Your task to perform on an android device: toggle sleep mode Image 0: 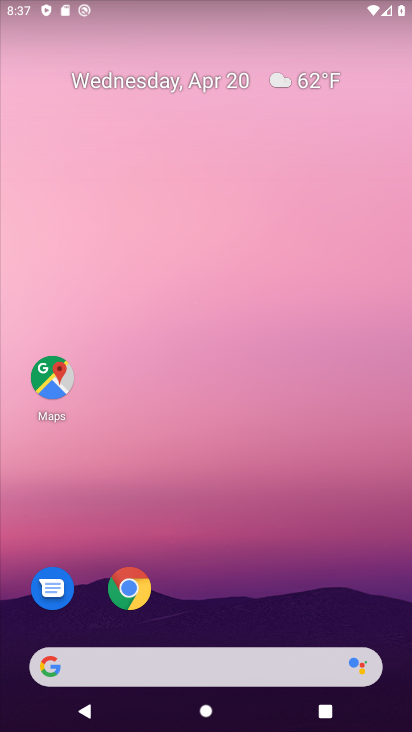
Step 0: drag from (243, 280) to (278, 14)
Your task to perform on an android device: toggle sleep mode Image 1: 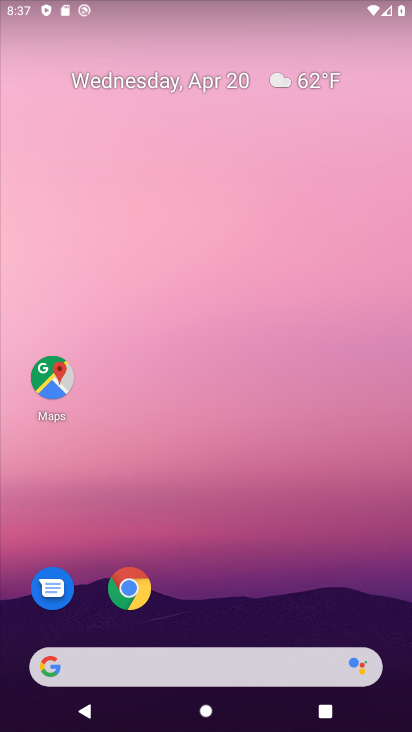
Step 1: drag from (215, 614) to (307, 75)
Your task to perform on an android device: toggle sleep mode Image 2: 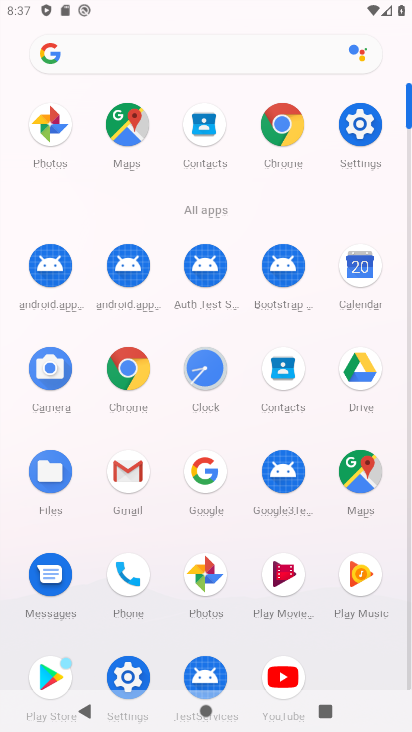
Step 2: click (361, 115)
Your task to perform on an android device: toggle sleep mode Image 3: 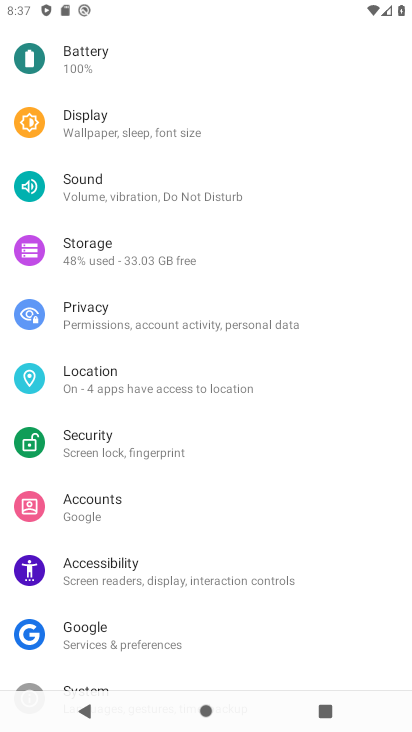
Step 3: click (107, 109)
Your task to perform on an android device: toggle sleep mode Image 4: 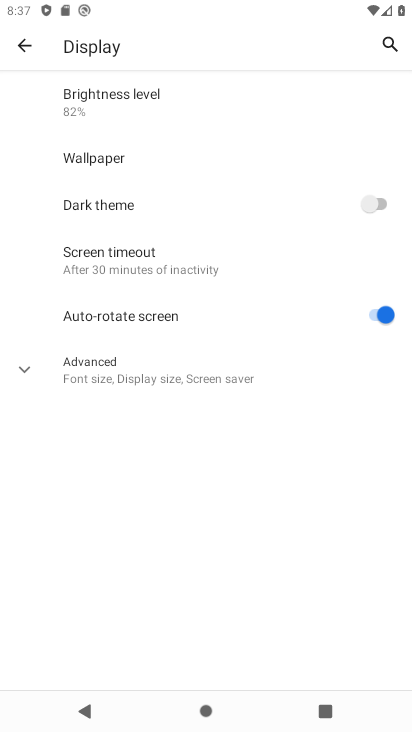
Step 4: click (38, 369)
Your task to perform on an android device: toggle sleep mode Image 5: 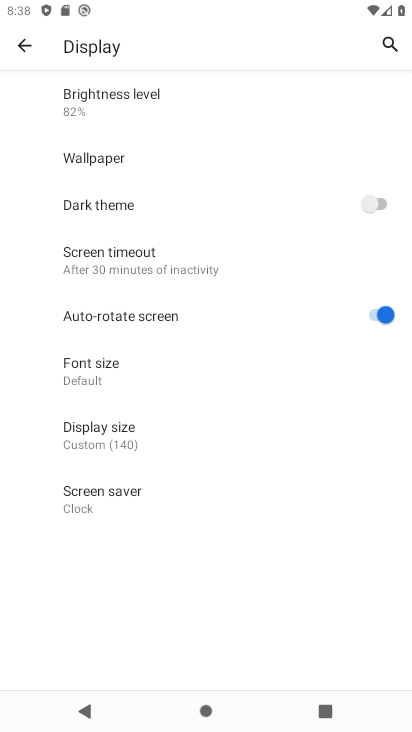
Step 5: task complete